Your task to perform on an android device: visit the assistant section in the google photos Image 0: 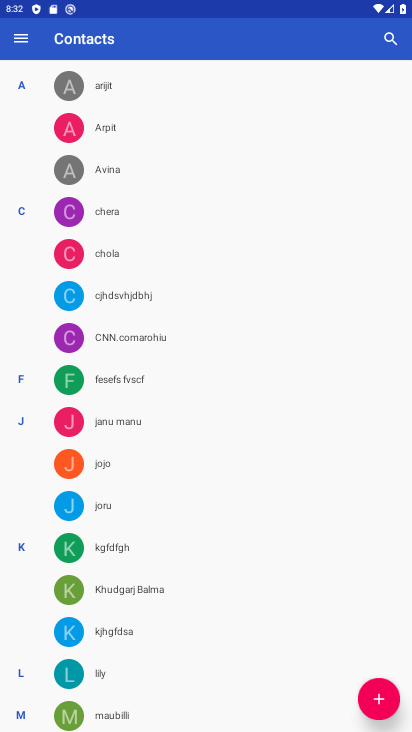
Step 0: press home button
Your task to perform on an android device: visit the assistant section in the google photos Image 1: 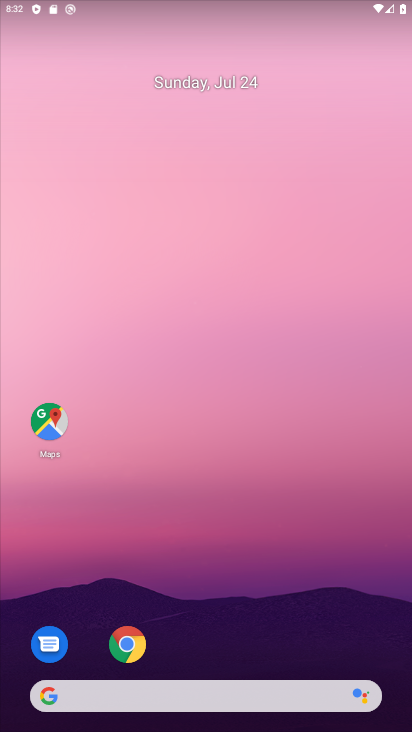
Step 1: drag from (256, 642) to (295, 69)
Your task to perform on an android device: visit the assistant section in the google photos Image 2: 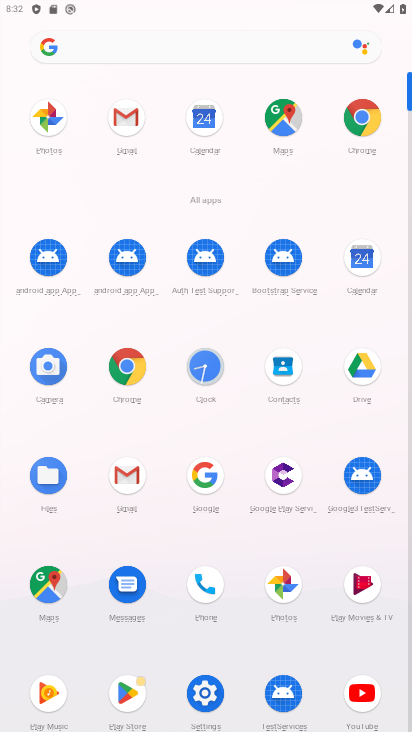
Step 2: click (286, 581)
Your task to perform on an android device: visit the assistant section in the google photos Image 3: 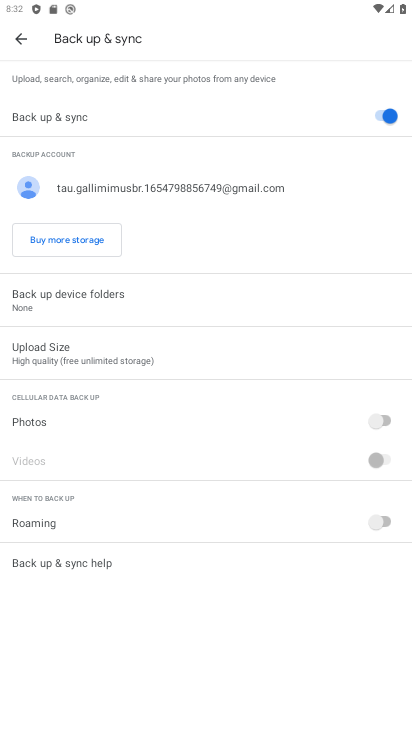
Step 3: click (13, 29)
Your task to perform on an android device: visit the assistant section in the google photos Image 4: 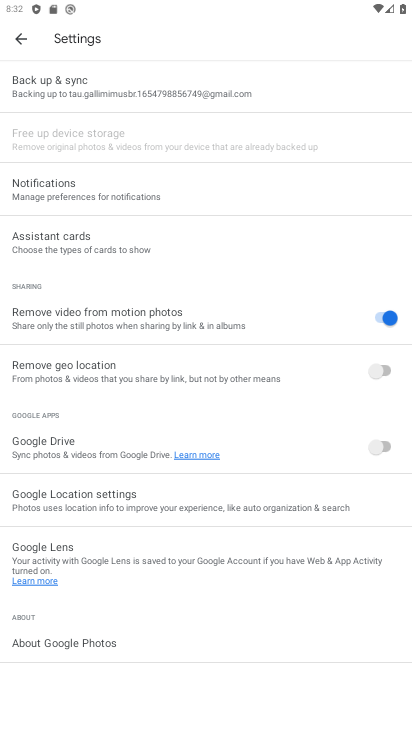
Step 4: click (13, 29)
Your task to perform on an android device: visit the assistant section in the google photos Image 5: 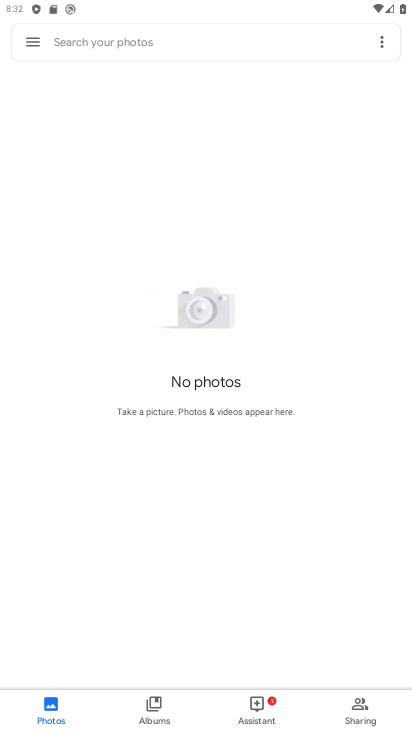
Step 5: click (262, 686)
Your task to perform on an android device: visit the assistant section in the google photos Image 6: 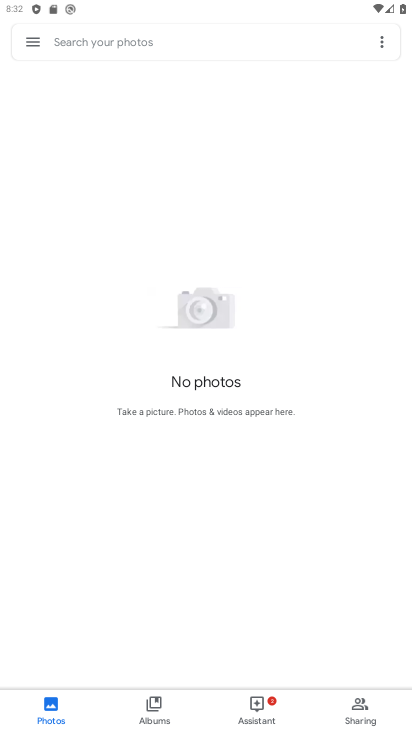
Step 6: click (257, 699)
Your task to perform on an android device: visit the assistant section in the google photos Image 7: 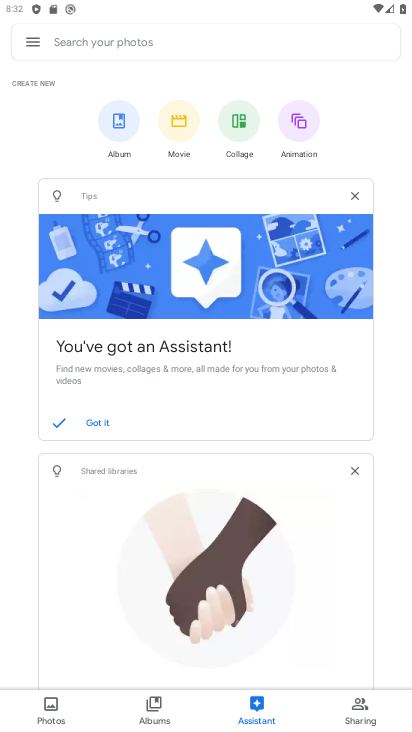
Step 7: task complete